Your task to perform on an android device: Go to ESPN.com Image 0: 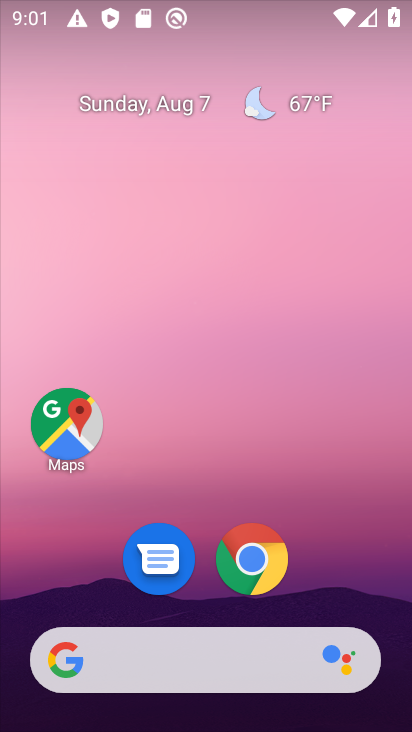
Step 0: drag from (213, 637) to (223, 1)
Your task to perform on an android device: Go to ESPN.com Image 1: 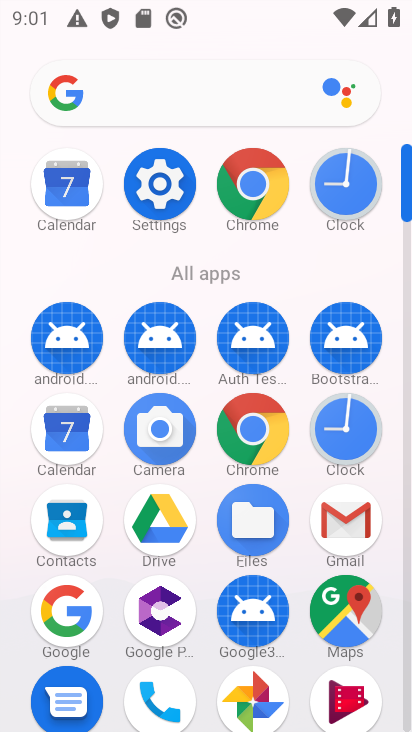
Step 1: click (271, 423)
Your task to perform on an android device: Go to ESPN.com Image 2: 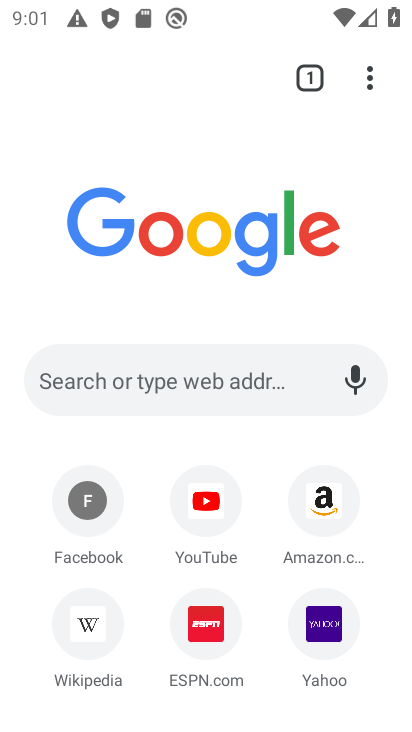
Step 2: click (203, 629)
Your task to perform on an android device: Go to ESPN.com Image 3: 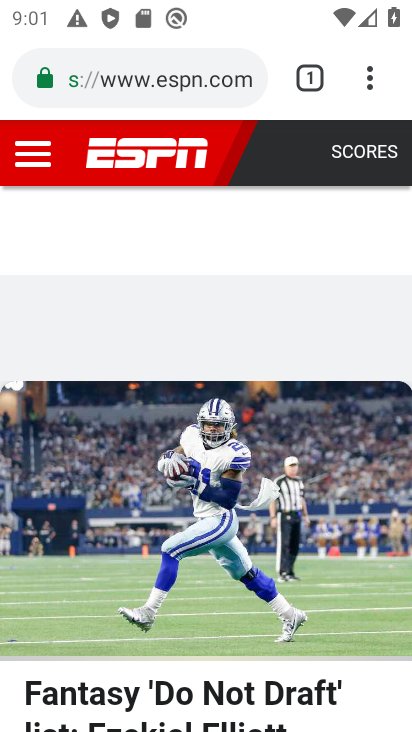
Step 3: task complete